Your task to perform on an android device: Open notification settings Image 0: 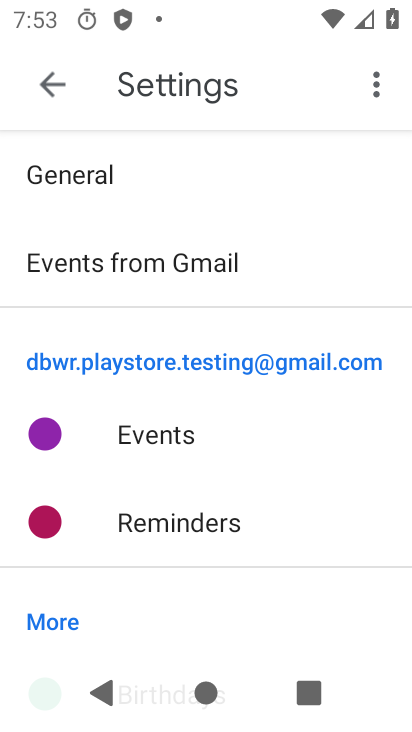
Step 0: press home button
Your task to perform on an android device: Open notification settings Image 1: 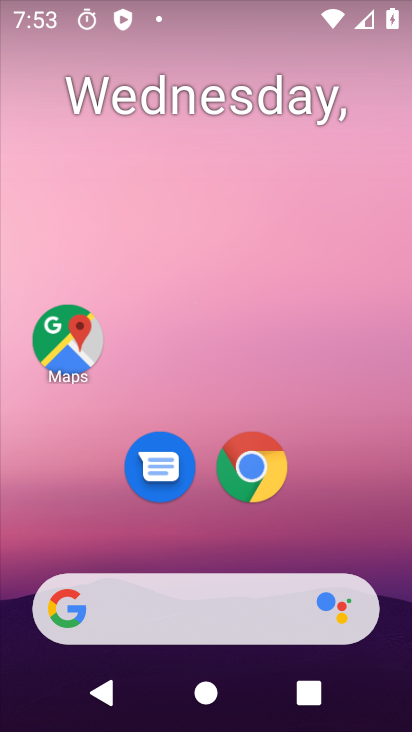
Step 1: click (308, 83)
Your task to perform on an android device: Open notification settings Image 2: 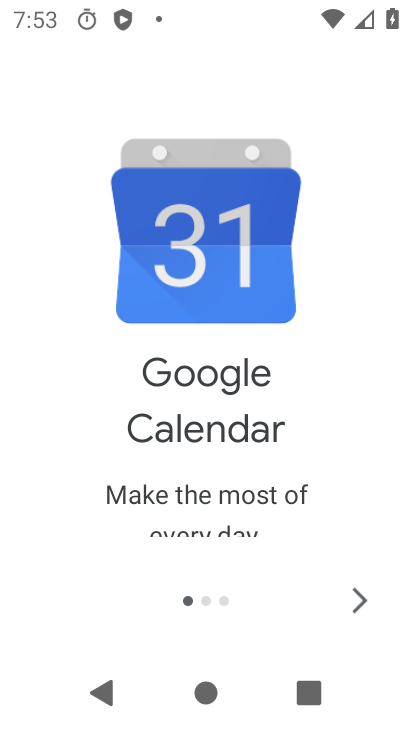
Step 2: press home button
Your task to perform on an android device: Open notification settings Image 3: 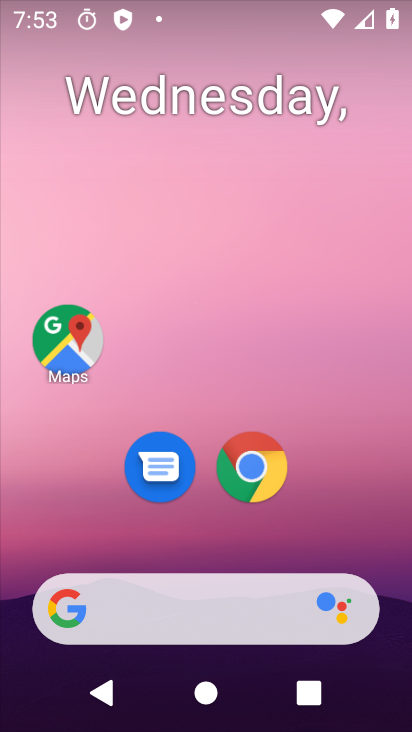
Step 3: drag from (355, 536) to (302, 119)
Your task to perform on an android device: Open notification settings Image 4: 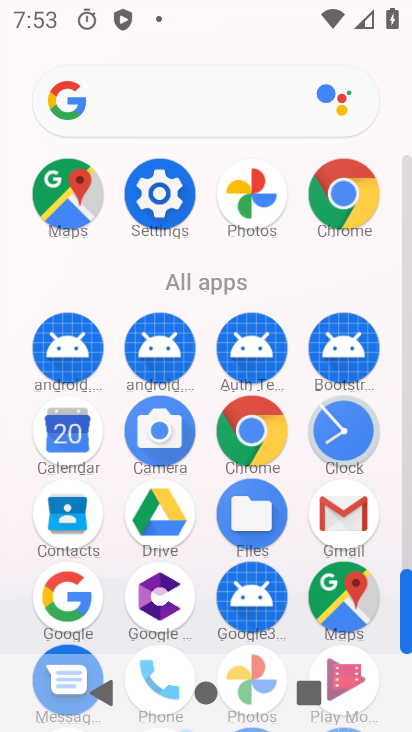
Step 4: click (160, 201)
Your task to perform on an android device: Open notification settings Image 5: 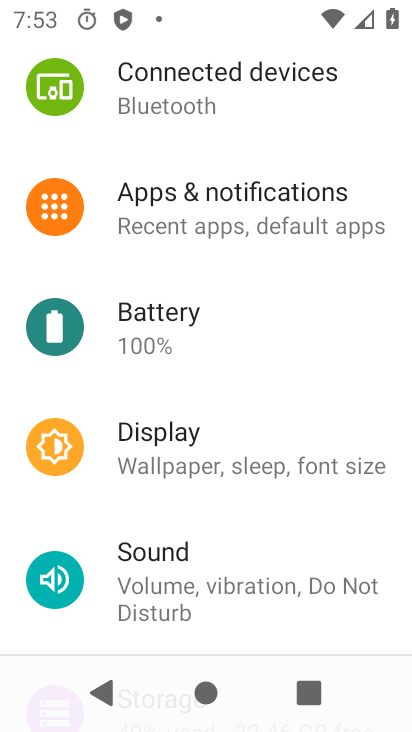
Step 5: click (165, 207)
Your task to perform on an android device: Open notification settings Image 6: 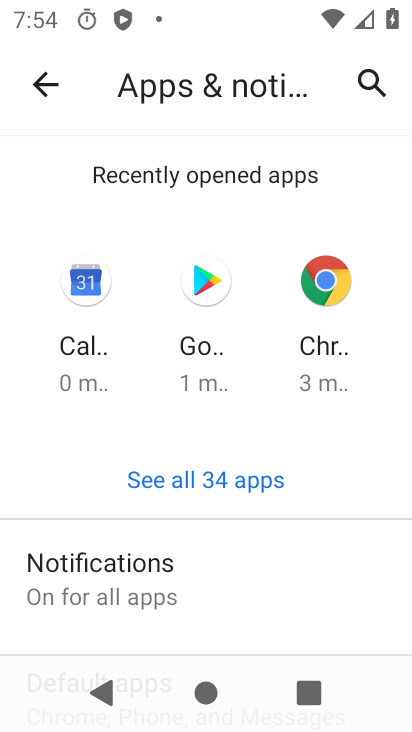
Step 6: click (114, 573)
Your task to perform on an android device: Open notification settings Image 7: 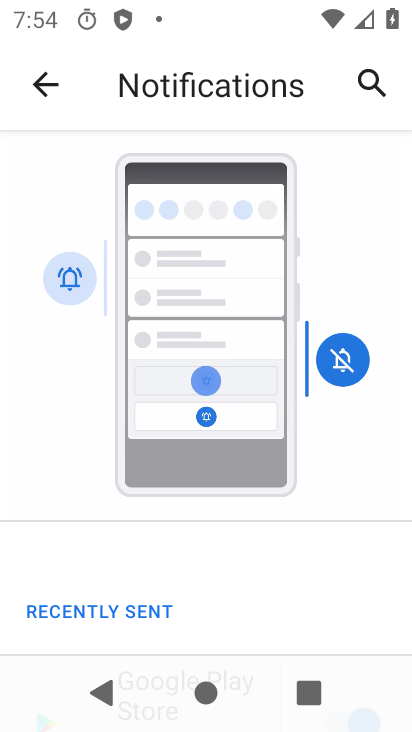
Step 7: task complete